Your task to perform on an android device: turn on the 12-hour format for clock Image 0: 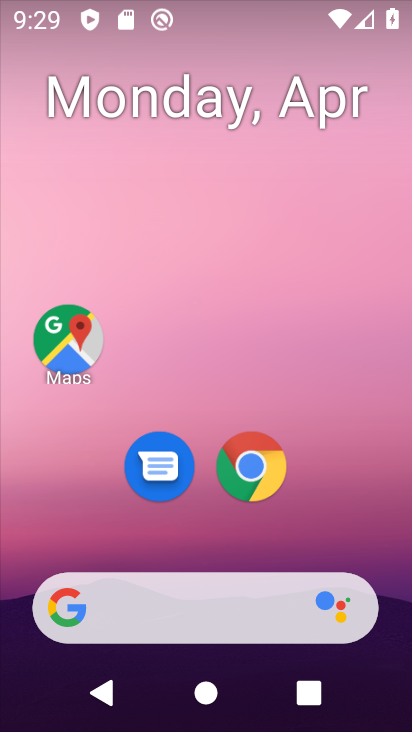
Step 0: drag from (202, 546) to (274, 103)
Your task to perform on an android device: turn on the 12-hour format for clock Image 1: 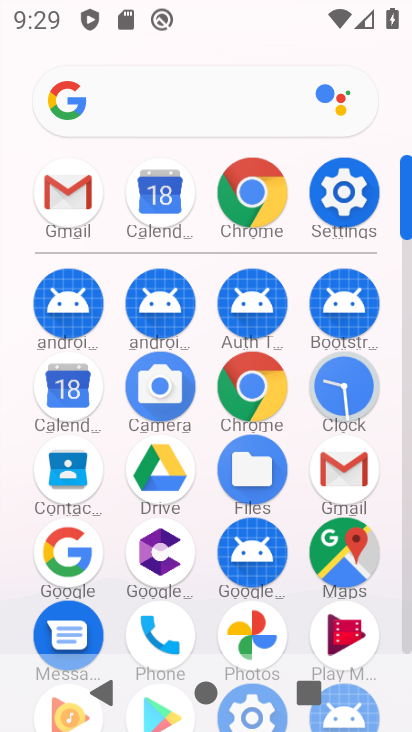
Step 1: click (345, 388)
Your task to perform on an android device: turn on the 12-hour format for clock Image 2: 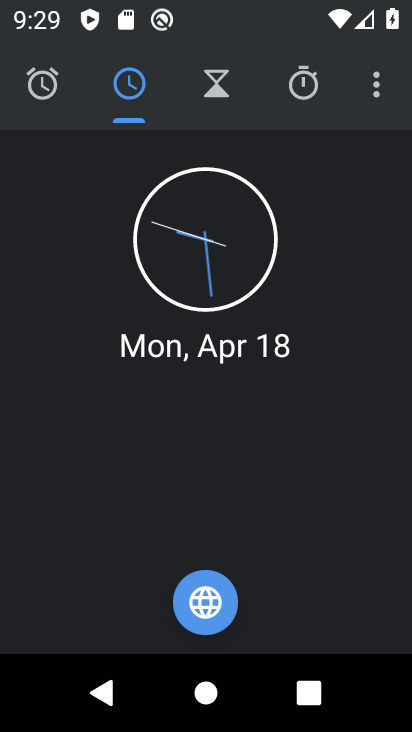
Step 2: click (378, 91)
Your task to perform on an android device: turn on the 12-hour format for clock Image 3: 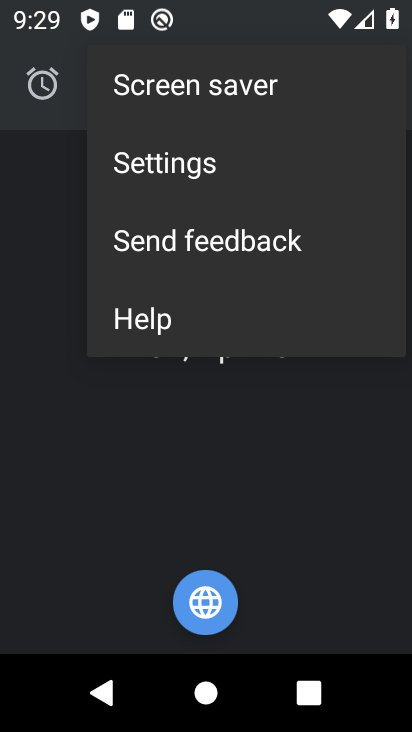
Step 3: click (179, 175)
Your task to perform on an android device: turn on the 12-hour format for clock Image 4: 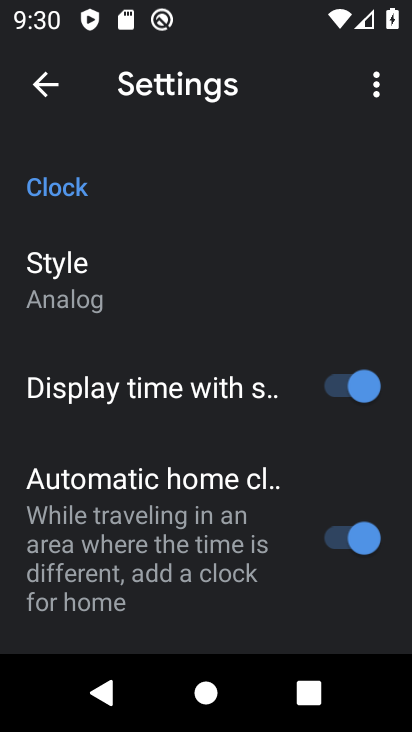
Step 4: drag from (139, 352) to (185, 257)
Your task to perform on an android device: turn on the 12-hour format for clock Image 5: 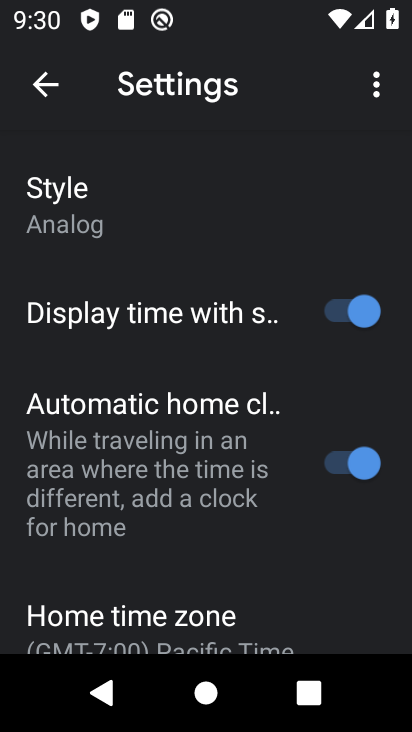
Step 5: drag from (168, 483) to (204, 395)
Your task to perform on an android device: turn on the 12-hour format for clock Image 6: 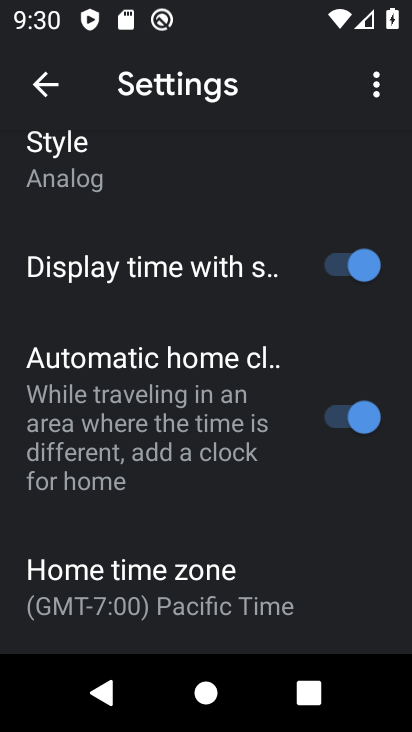
Step 6: drag from (153, 516) to (205, 421)
Your task to perform on an android device: turn on the 12-hour format for clock Image 7: 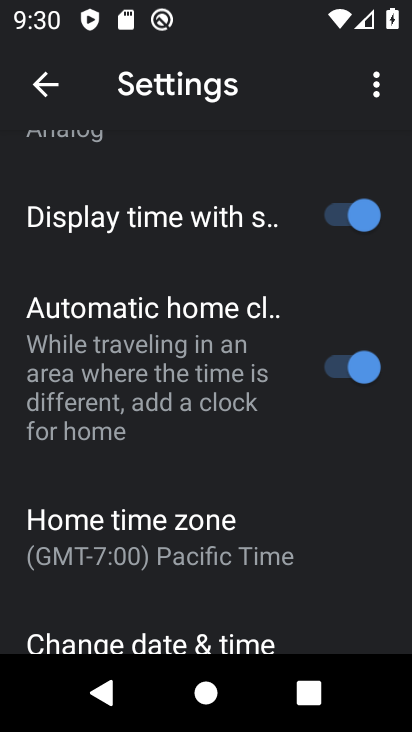
Step 7: drag from (176, 485) to (204, 425)
Your task to perform on an android device: turn on the 12-hour format for clock Image 8: 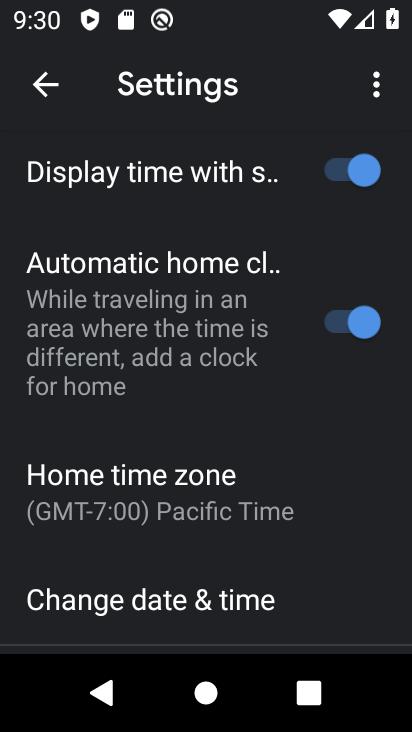
Step 8: drag from (167, 540) to (196, 447)
Your task to perform on an android device: turn on the 12-hour format for clock Image 9: 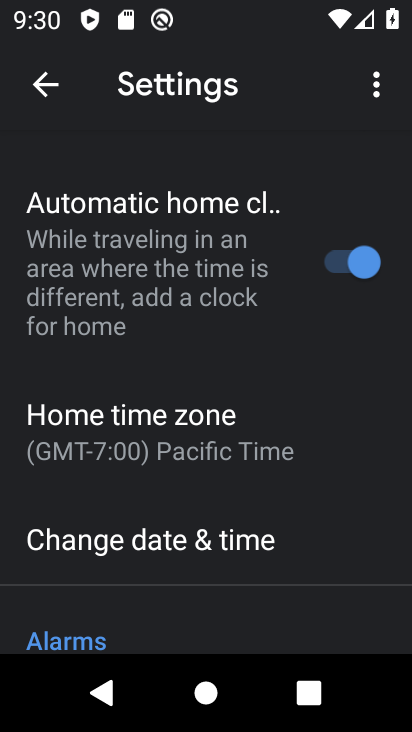
Step 9: click (157, 543)
Your task to perform on an android device: turn on the 12-hour format for clock Image 10: 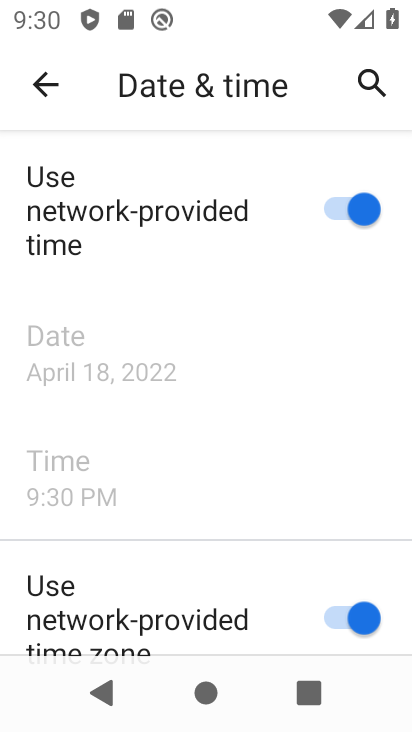
Step 10: task complete